Your task to perform on an android device: Go to CNN.com Image 0: 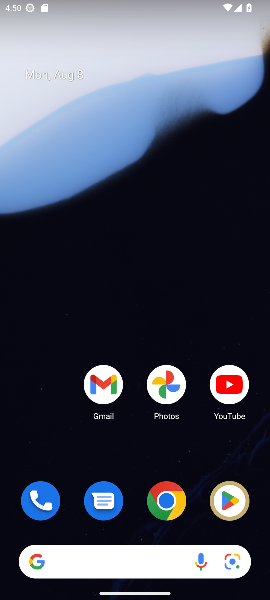
Step 0: click (83, 570)
Your task to perform on an android device: Go to CNN.com Image 1: 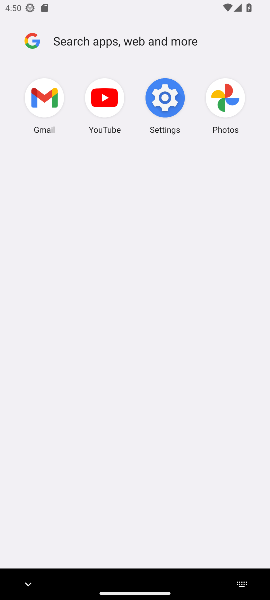
Step 1: type "CNN.com"
Your task to perform on an android device: Go to CNN.com Image 2: 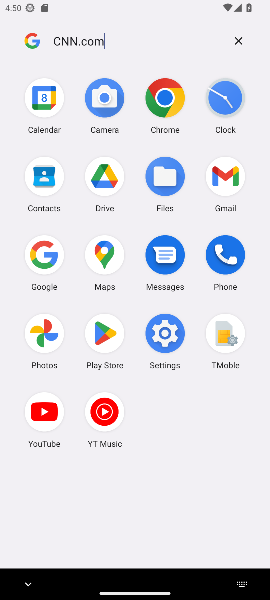
Step 2: type ""
Your task to perform on an android device: Go to CNN.com Image 3: 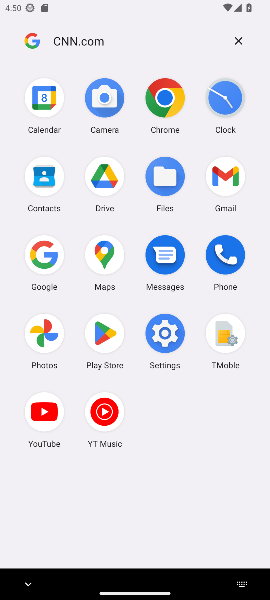
Step 3: type ""
Your task to perform on an android device: Go to CNN.com Image 4: 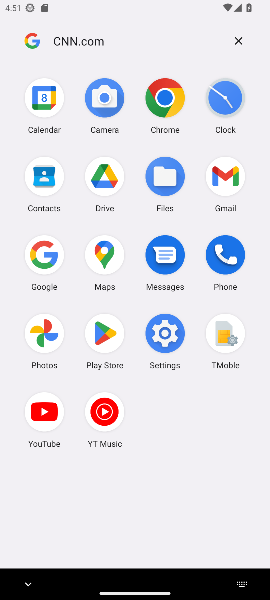
Step 4: task complete